Your task to perform on an android device: Go to Yahoo.com Image 0: 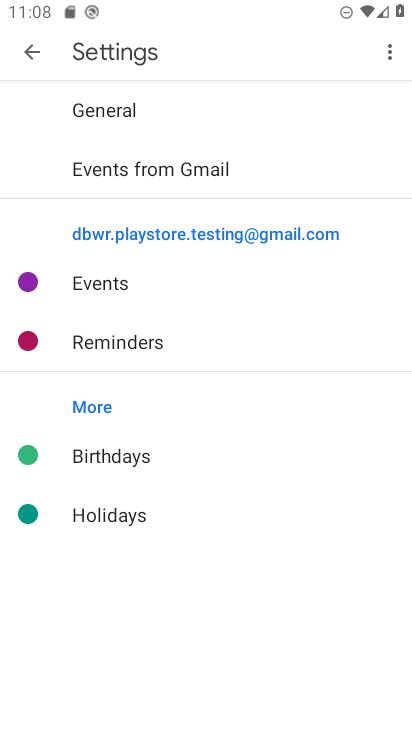
Step 0: press home button
Your task to perform on an android device: Go to Yahoo.com Image 1: 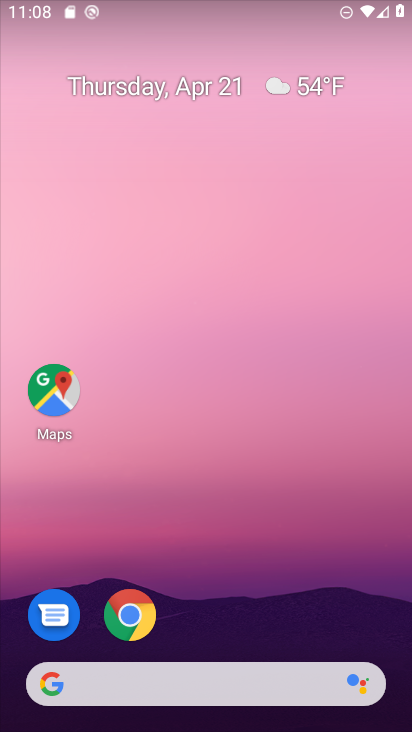
Step 1: click (119, 612)
Your task to perform on an android device: Go to Yahoo.com Image 2: 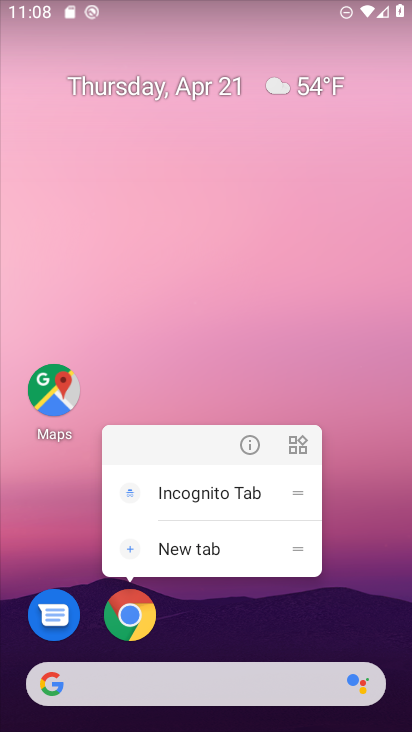
Step 2: click (121, 611)
Your task to perform on an android device: Go to Yahoo.com Image 3: 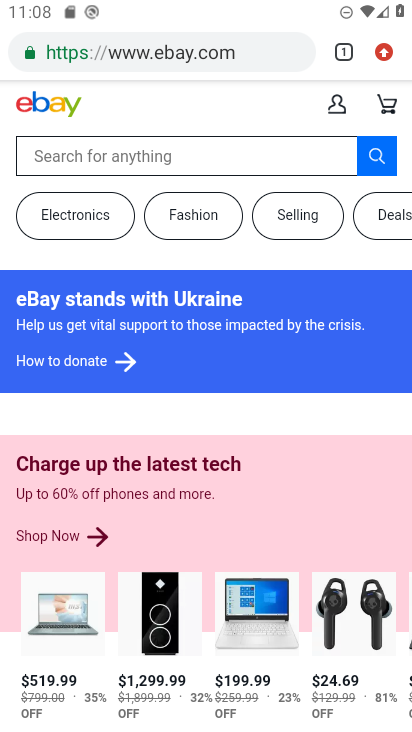
Step 3: click (179, 41)
Your task to perform on an android device: Go to Yahoo.com Image 4: 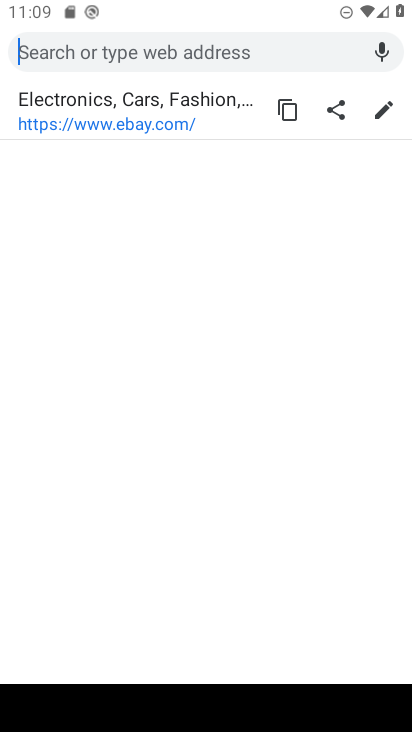
Step 4: type "yahoo.com"
Your task to perform on an android device: Go to Yahoo.com Image 5: 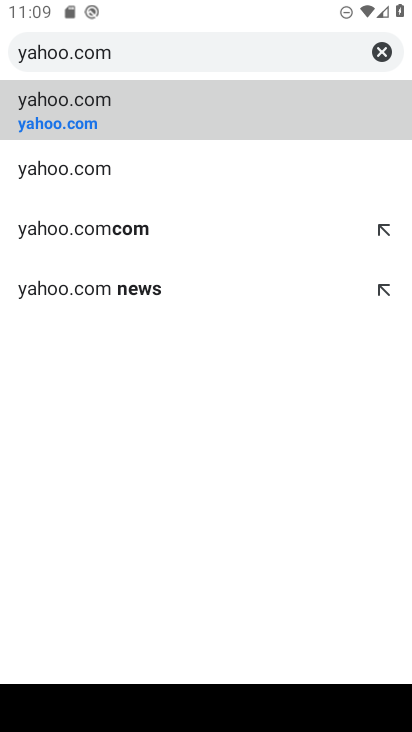
Step 5: click (257, 104)
Your task to perform on an android device: Go to Yahoo.com Image 6: 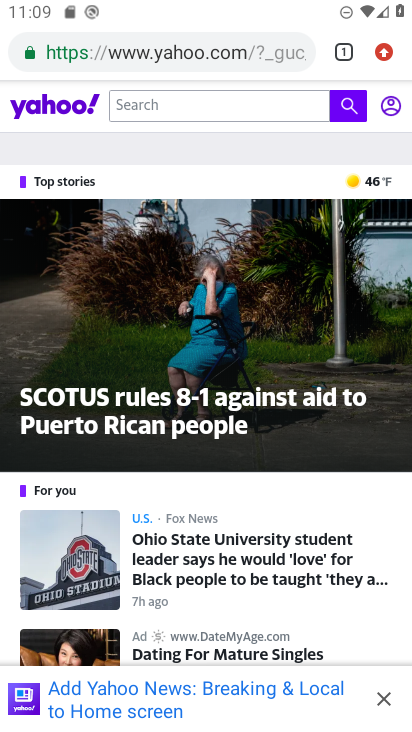
Step 6: task complete